Your task to perform on an android device: Go to notification settings Image 0: 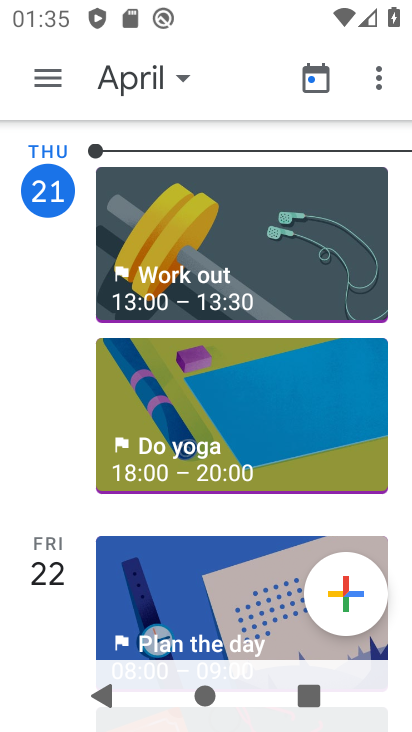
Step 0: press home button
Your task to perform on an android device: Go to notification settings Image 1: 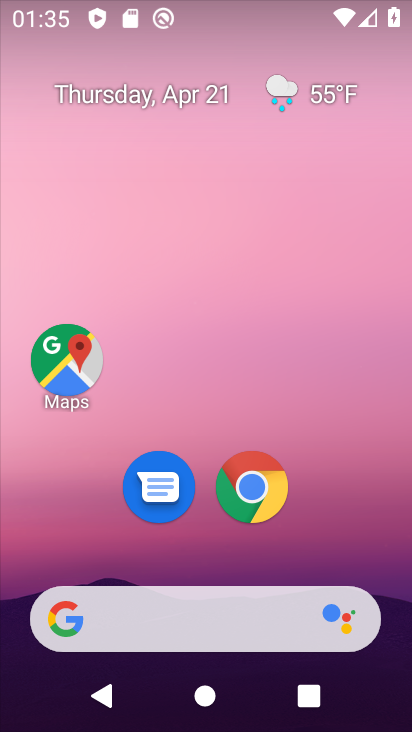
Step 1: drag from (314, 555) to (335, 139)
Your task to perform on an android device: Go to notification settings Image 2: 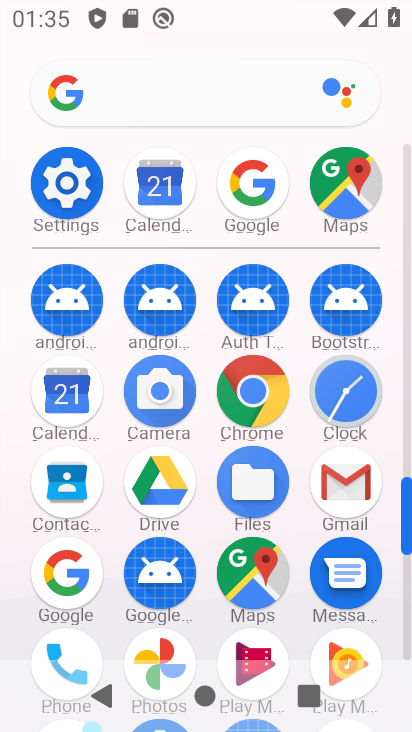
Step 2: click (67, 196)
Your task to perform on an android device: Go to notification settings Image 3: 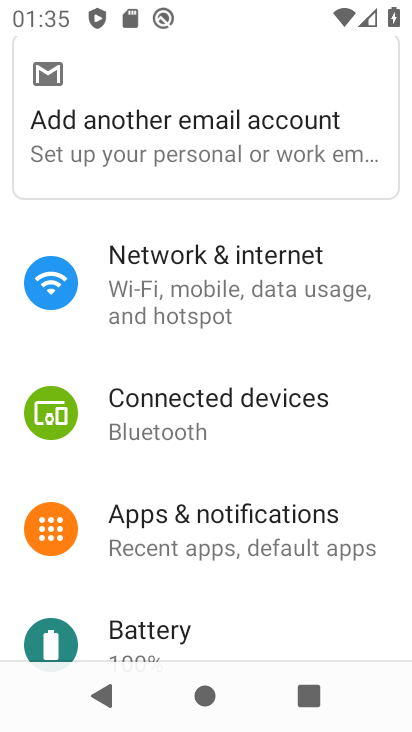
Step 3: click (153, 550)
Your task to perform on an android device: Go to notification settings Image 4: 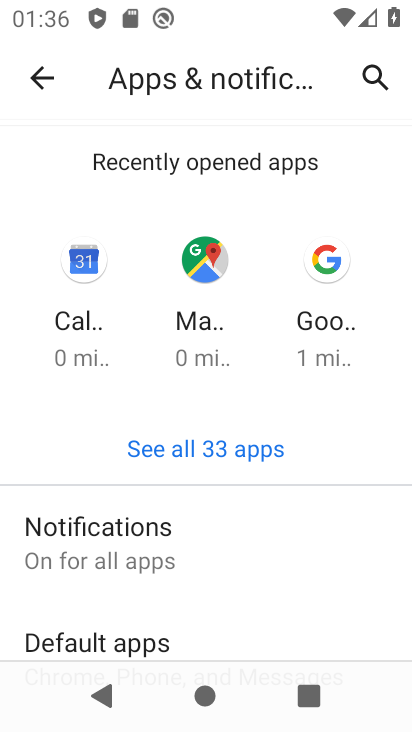
Step 4: click (153, 525)
Your task to perform on an android device: Go to notification settings Image 5: 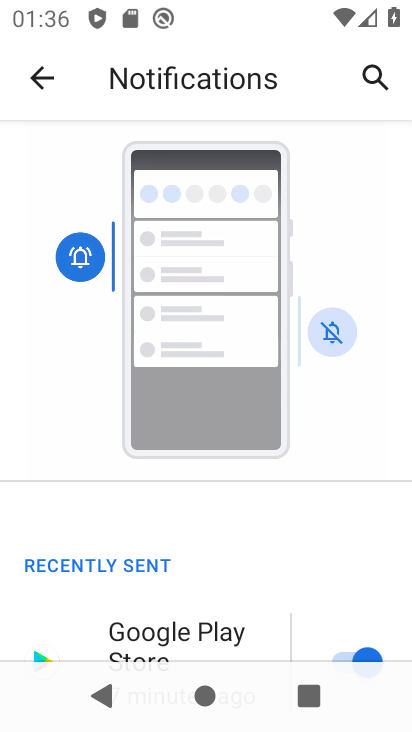
Step 5: task complete